Your task to perform on an android device: turn off javascript in the chrome app Image 0: 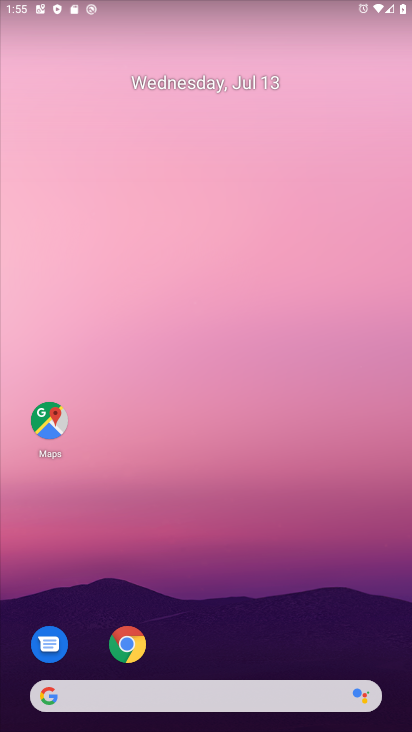
Step 0: click (129, 647)
Your task to perform on an android device: turn off javascript in the chrome app Image 1: 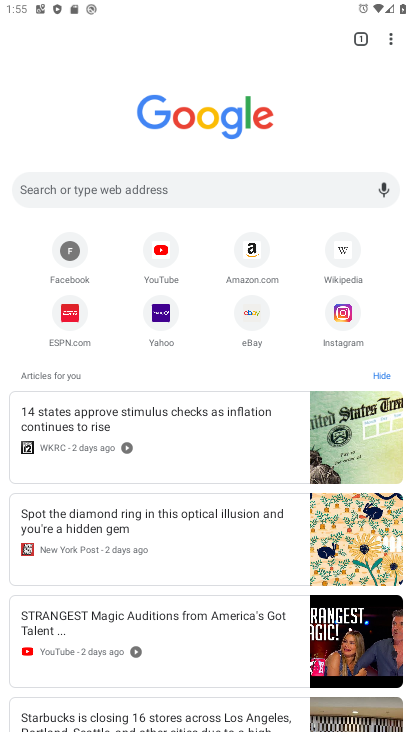
Step 1: drag from (394, 37) to (239, 326)
Your task to perform on an android device: turn off javascript in the chrome app Image 2: 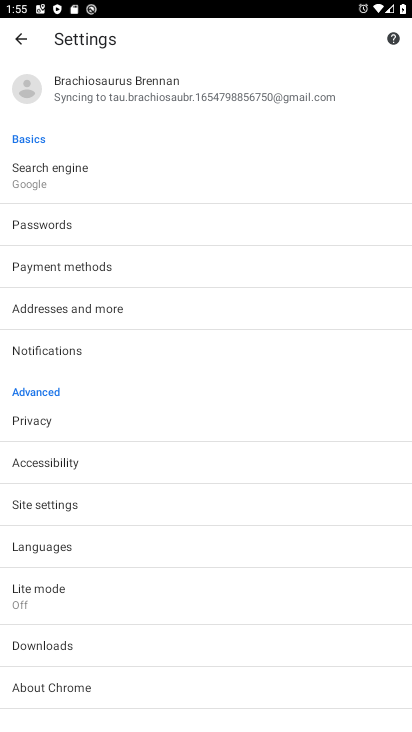
Step 2: click (74, 500)
Your task to perform on an android device: turn off javascript in the chrome app Image 3: 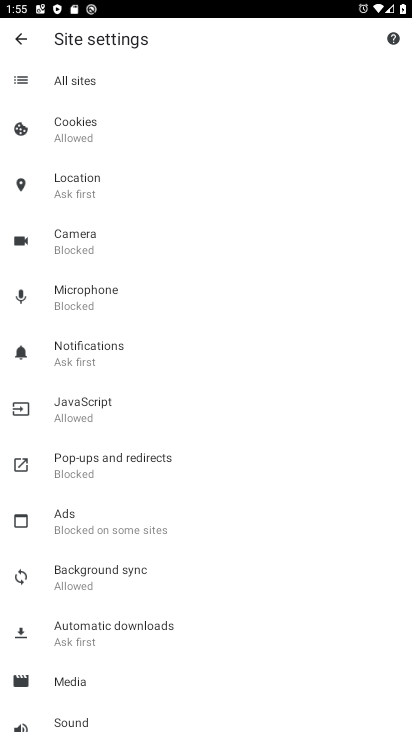
Step 3: click (94, 391)
Your task to perform on an android device: turn off javascript in the chrome app Image 4: 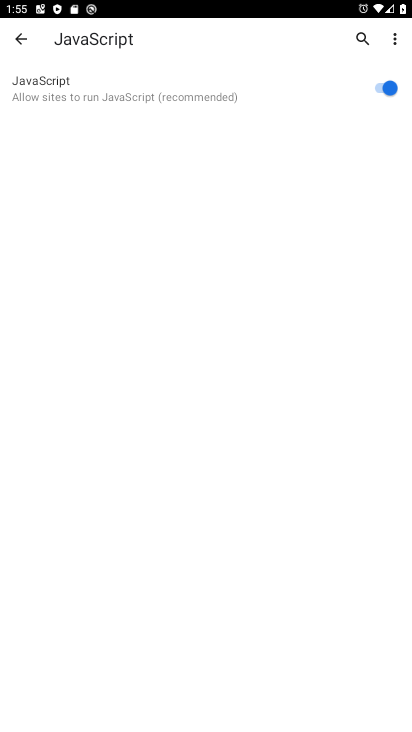
Step 4: click (380, 95)
Your task to perform on an android device: turn off javascript in the chrome app Image 5: 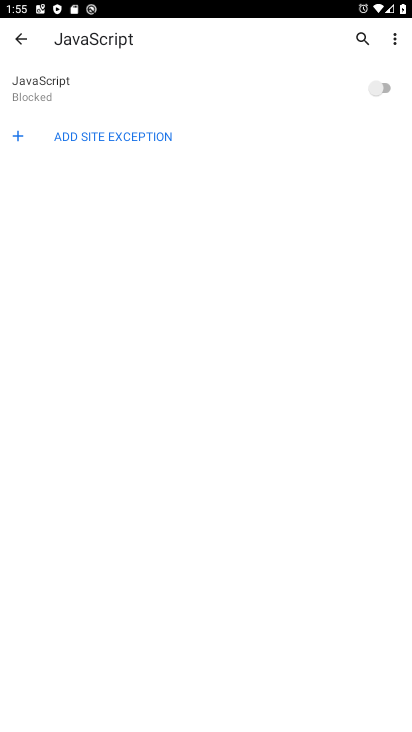
Step 5: task complete